Your task to perform on an android device: Open display settings Image 0: 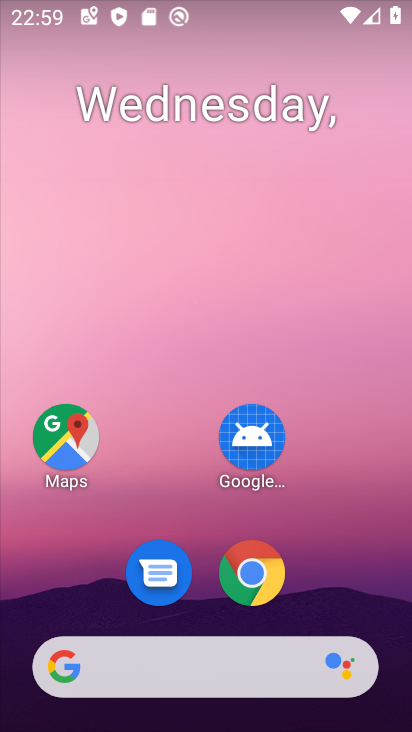
Step 0: drag from (161, 482) to (242, 4)
Your task to perform on an android device: Open display settings Image 1: 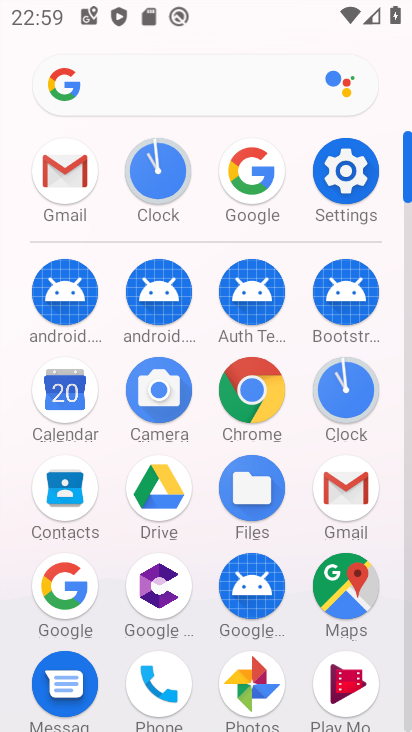
Step 1: click (346, 171)
Your task to perform on an android device: Open display settings Image 2: 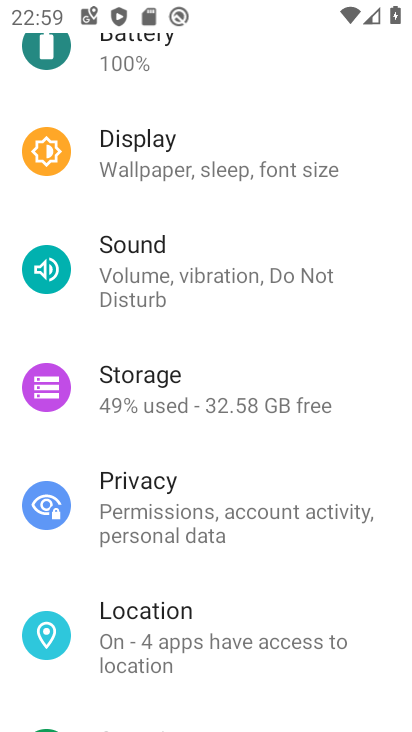
Step 2: click (164, 148)
Your task to perform on an android device: Open display settings Image 3: 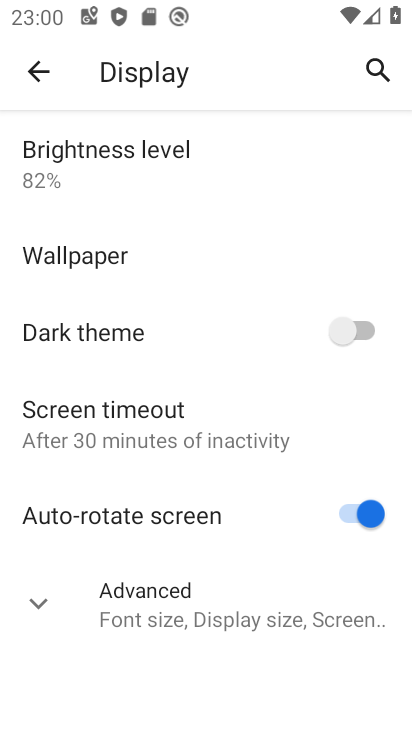
Step 3: task complete